Your task to perform on an android device: clear history in the chrome app Image 0: 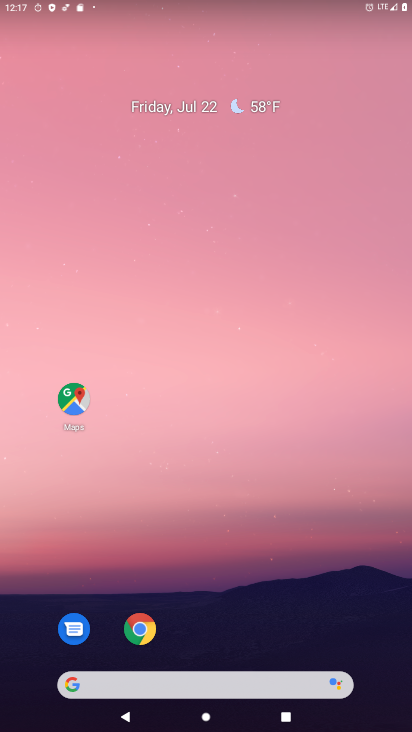
Step 0: drag from (362, 627) to (336, 146)
Your task to perform on an android device: clear history in the chrome app Image 1: 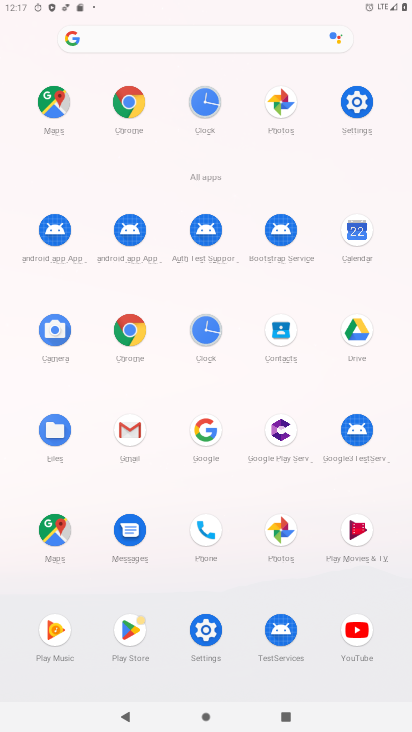
Step 1: click (140, 334)
Your task to perform on an android device: clear history in the chrome app Image 2: 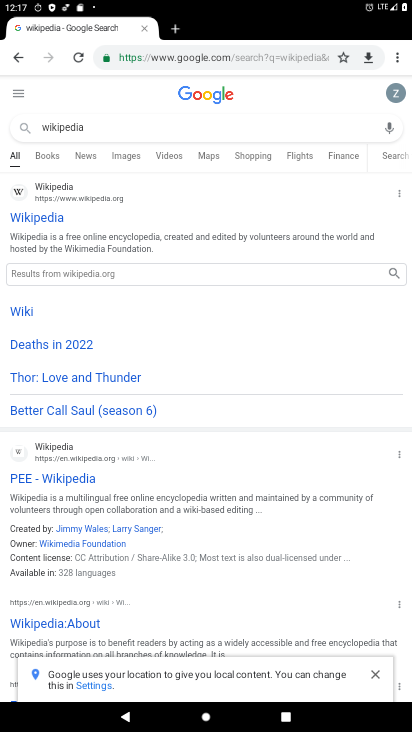
Step 2: click (394, 54)
Your task to perform on an android device: clear history in the chrome app Image 3: 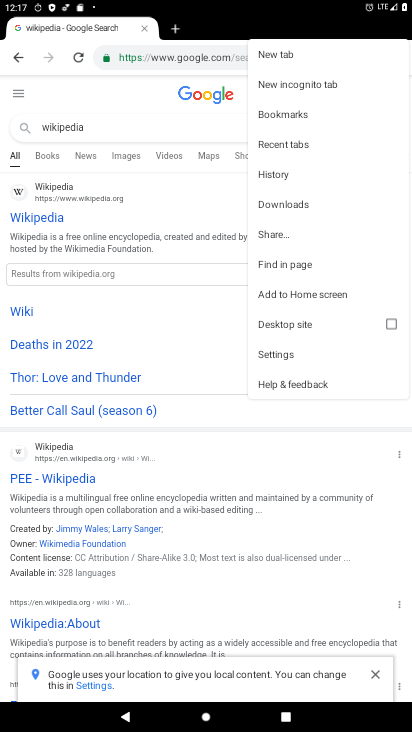
Step 3: click (295, 174)
Your task to perform on an android device: clear history in the chrome app Image 4: 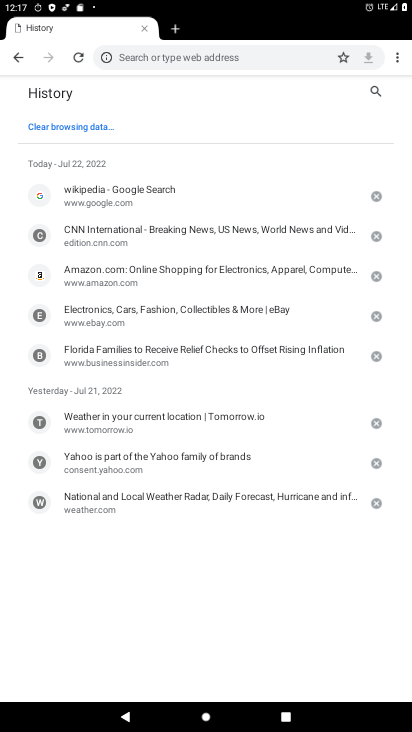
Step 4: click (101, 130)
Your task to perform on an android device: clear history in the chrome app Image 5: 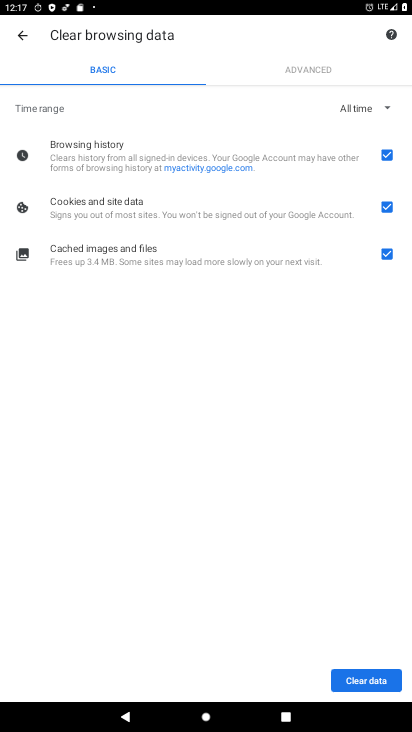
Step 5: click (362, 680)
Your task to perform on an android device: clear history in the chrome app Image 6: 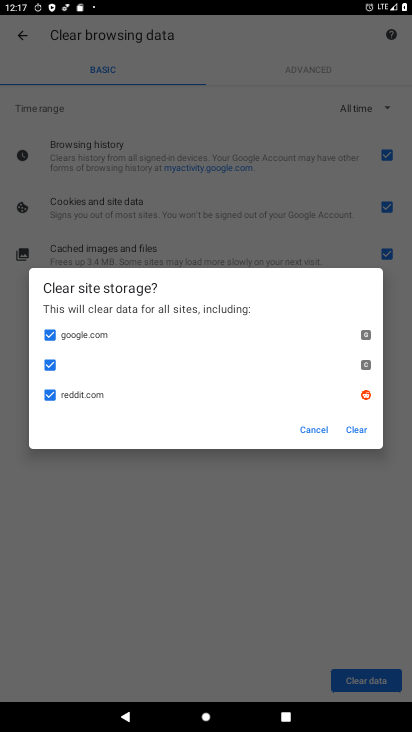
Step 6: click (357, 429)
Your task to perform on an android device: clear history in the chrome app Image 7: 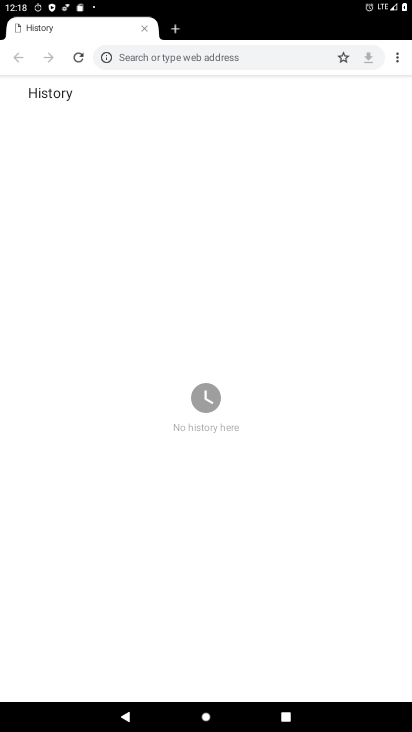
Step 7: task complete